Your task to perform on an android device: Go to privacy settings Image 0: 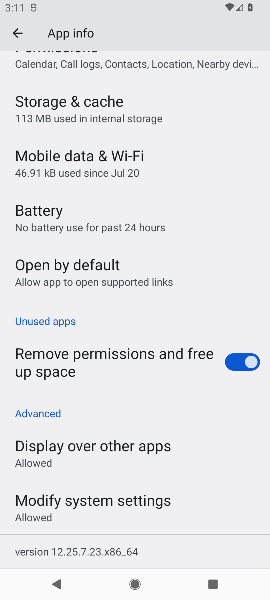
Step 0: press home button
Your task to perform on an android device: Go to privacy settings Image 1: 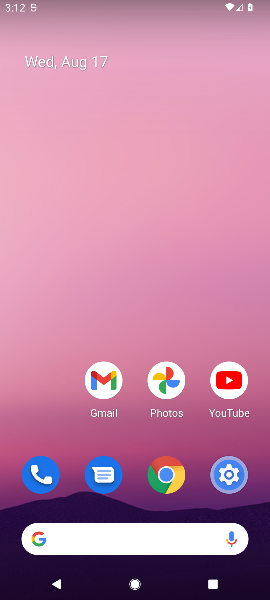
Step 1: click (222, 467)
Your task to perform on an android device: Go to privacy settings Image 2: 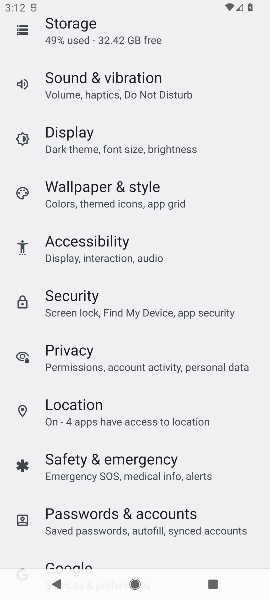
Step 2: click (64, 360)
Your task to perform on an android device: Go to privacy settings Image 3: 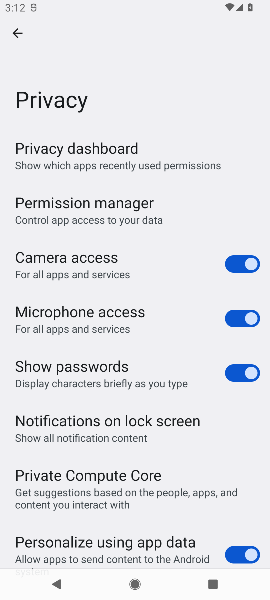
Step 3: task complete